Your task to perform on an android device: stop showing notifications on the lock screen Image 0: 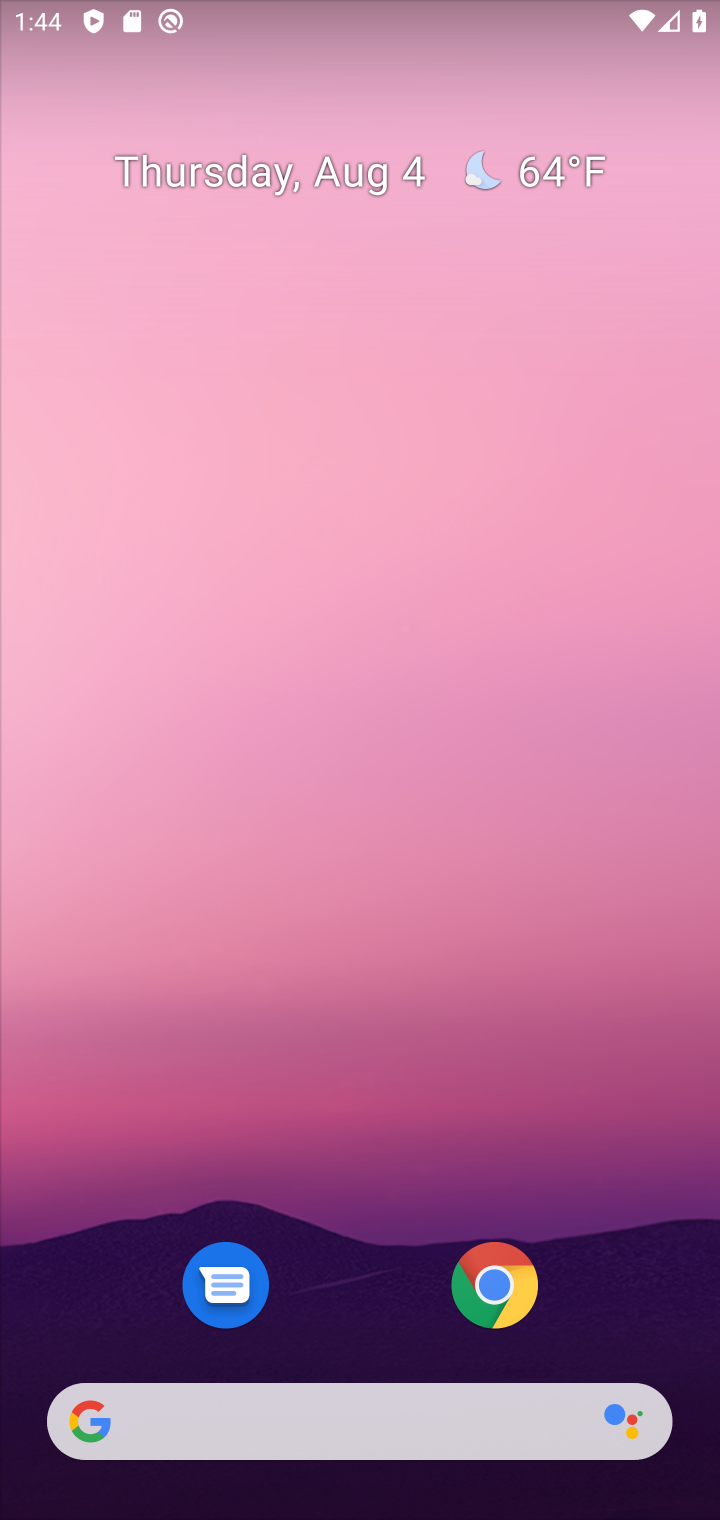
Step 0: drag from (667, 1263) to (583, 149)
Your task to perform on an android device: stop showing notifications on the lock screen Image 1: 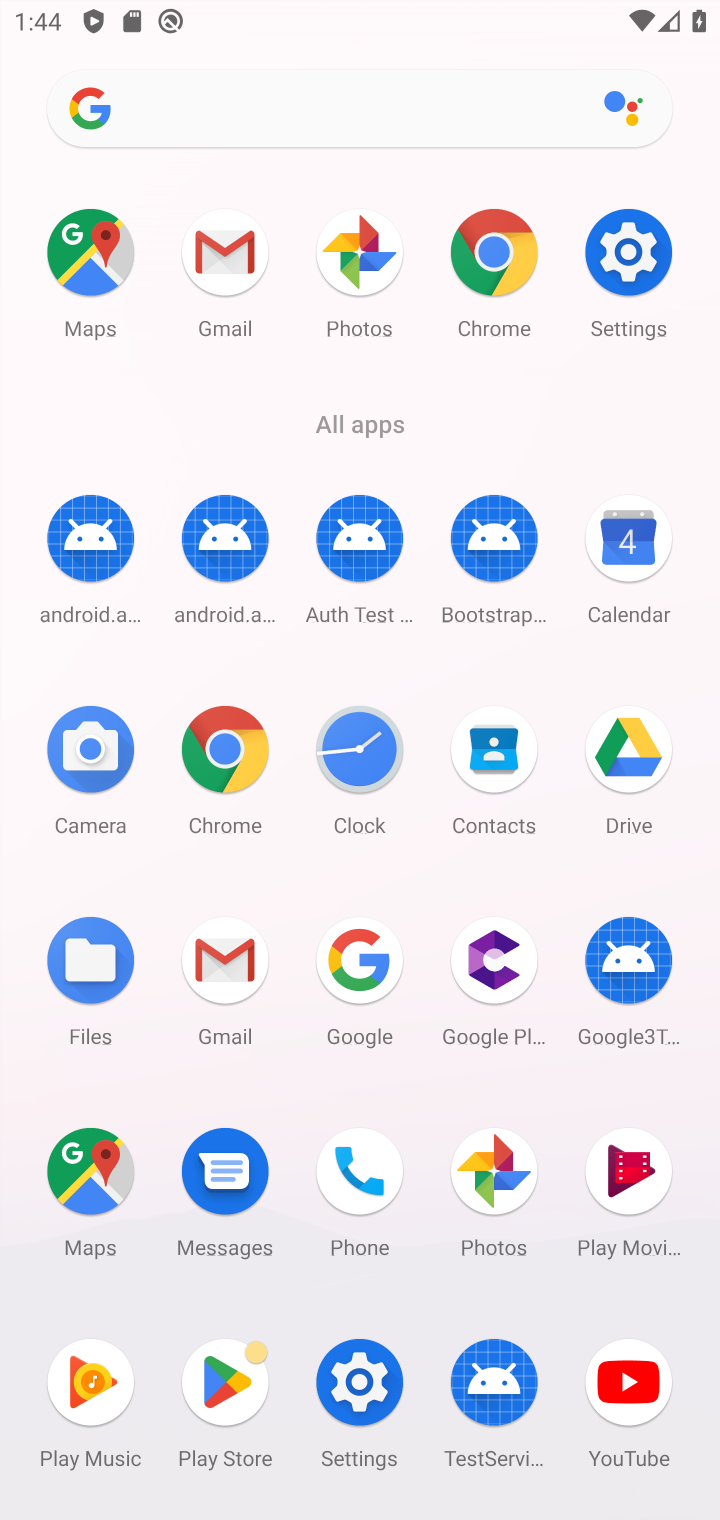
Step 1: click (360, 1377)
Your task to perform on an android device: stop showing notifications on the lock screen Image 2: 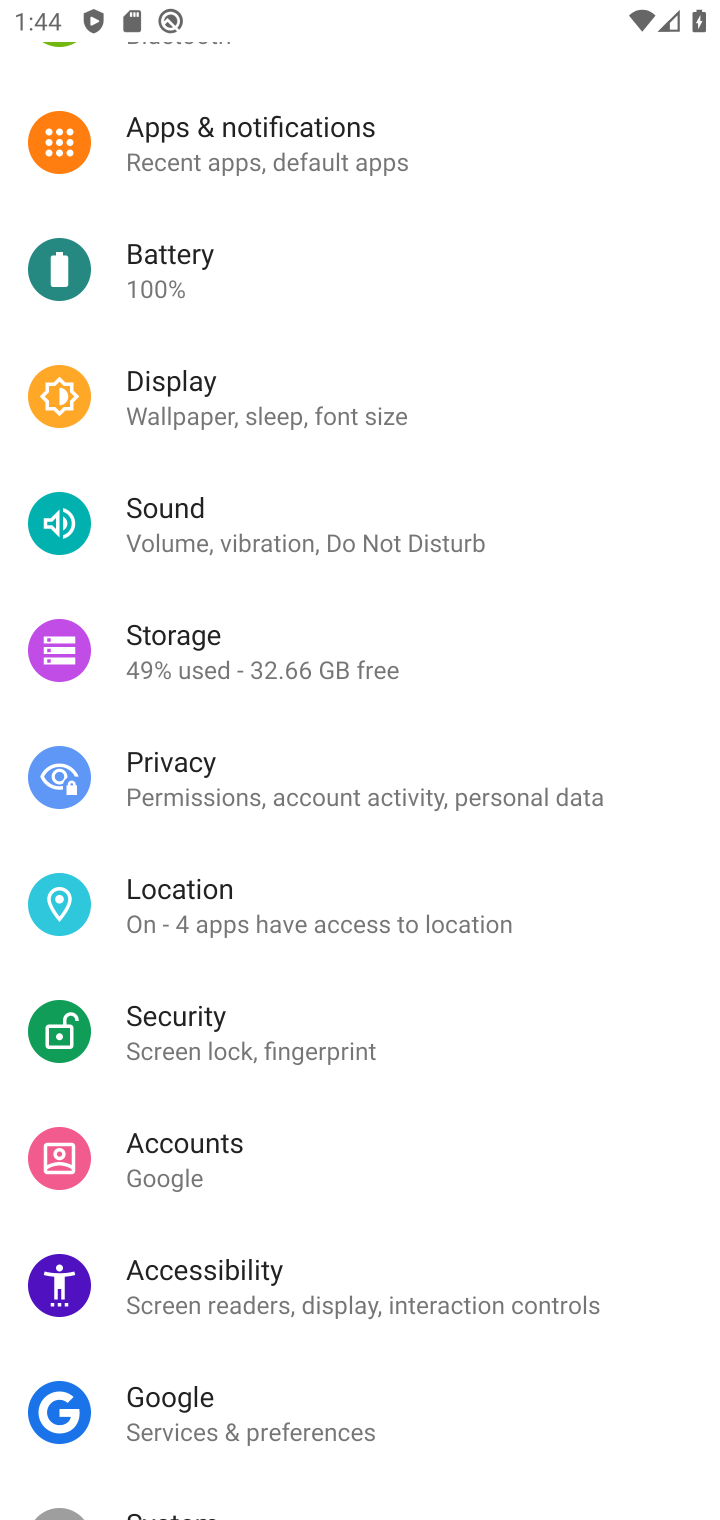
Step 2: drag from (611, 431) to (604, 918)
Your task to perform on an android device: stop showing notifications on the lock screen Image 3: 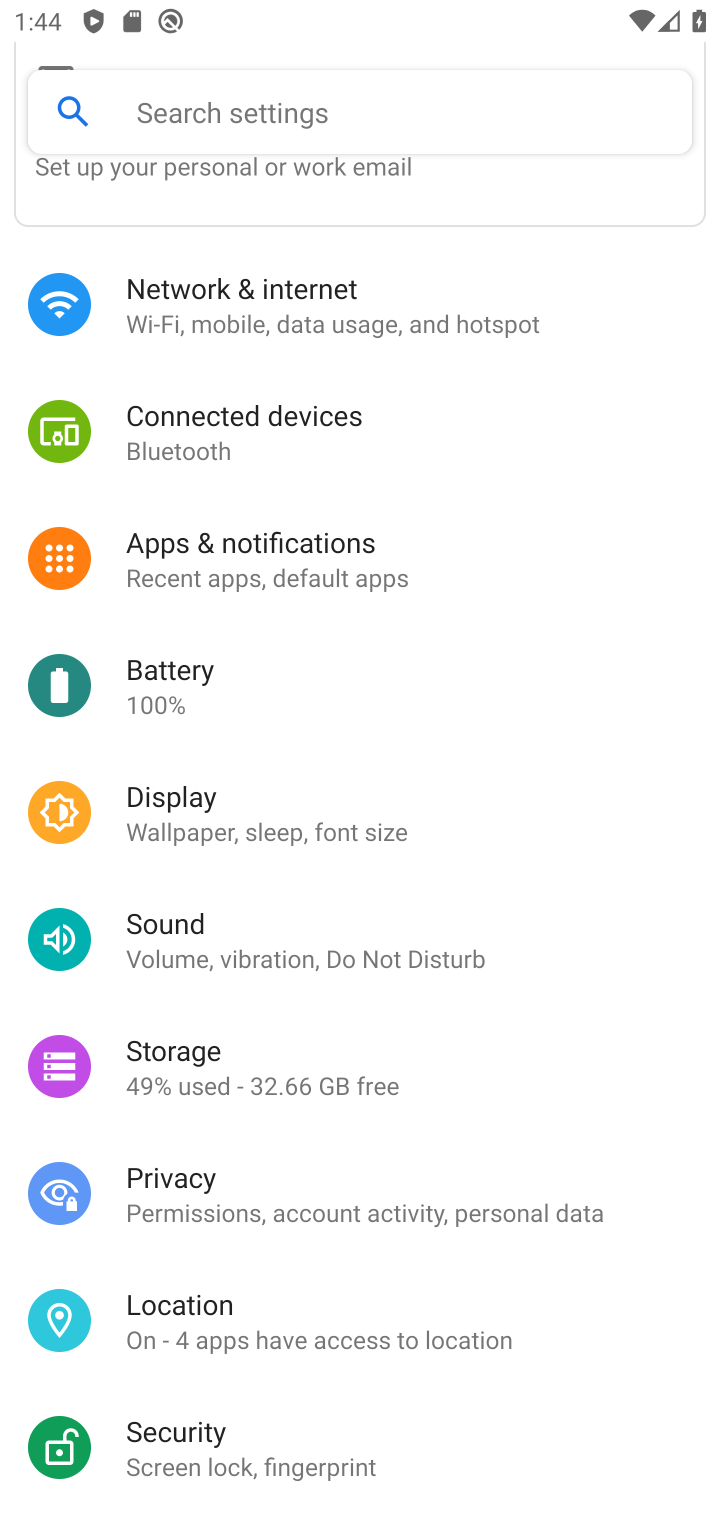
Step 3: click (199, 571)
Your task to perform on an android device: stop showing notifications on the lock screen Image 4: 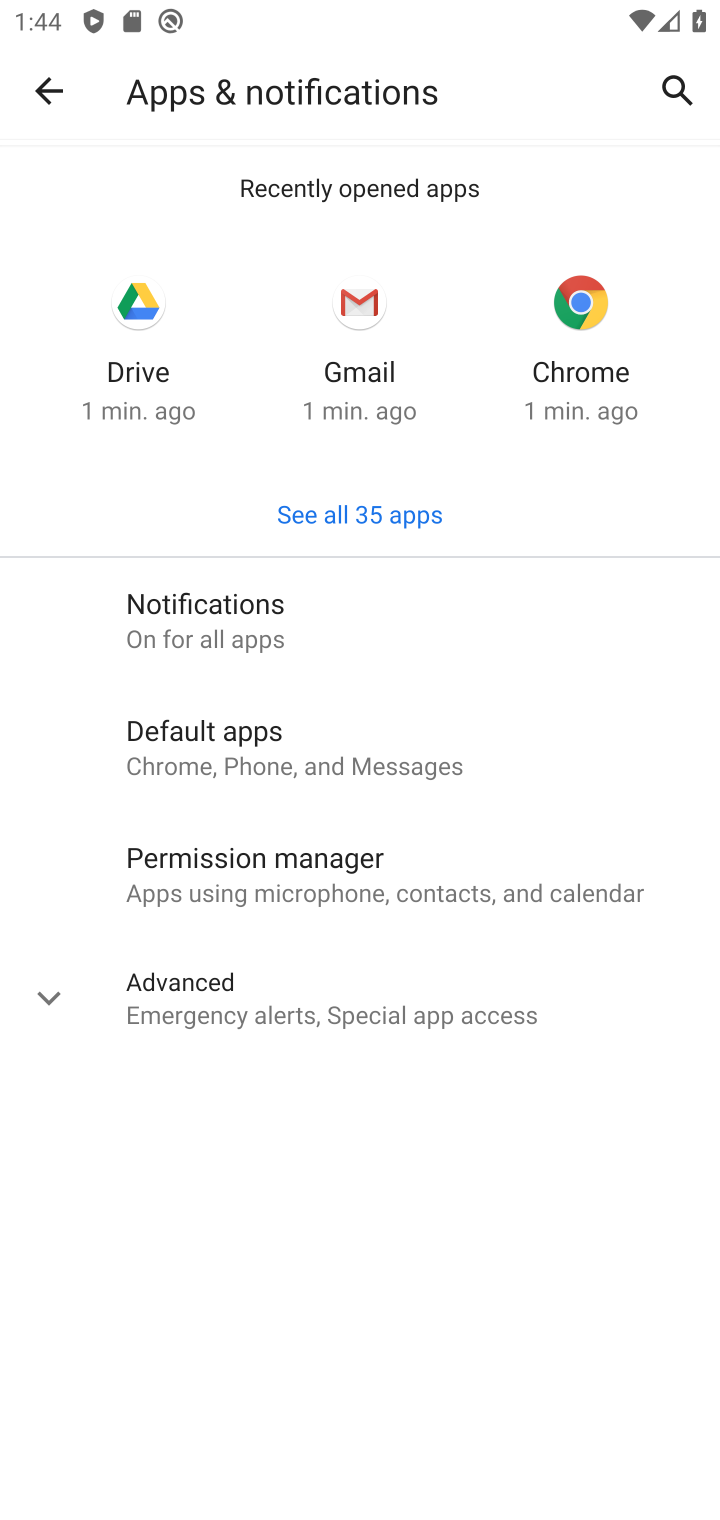
Step 4: click (208, 609)
Your task to perform on an android device: stop showing notifications on the lock screen Image 5: 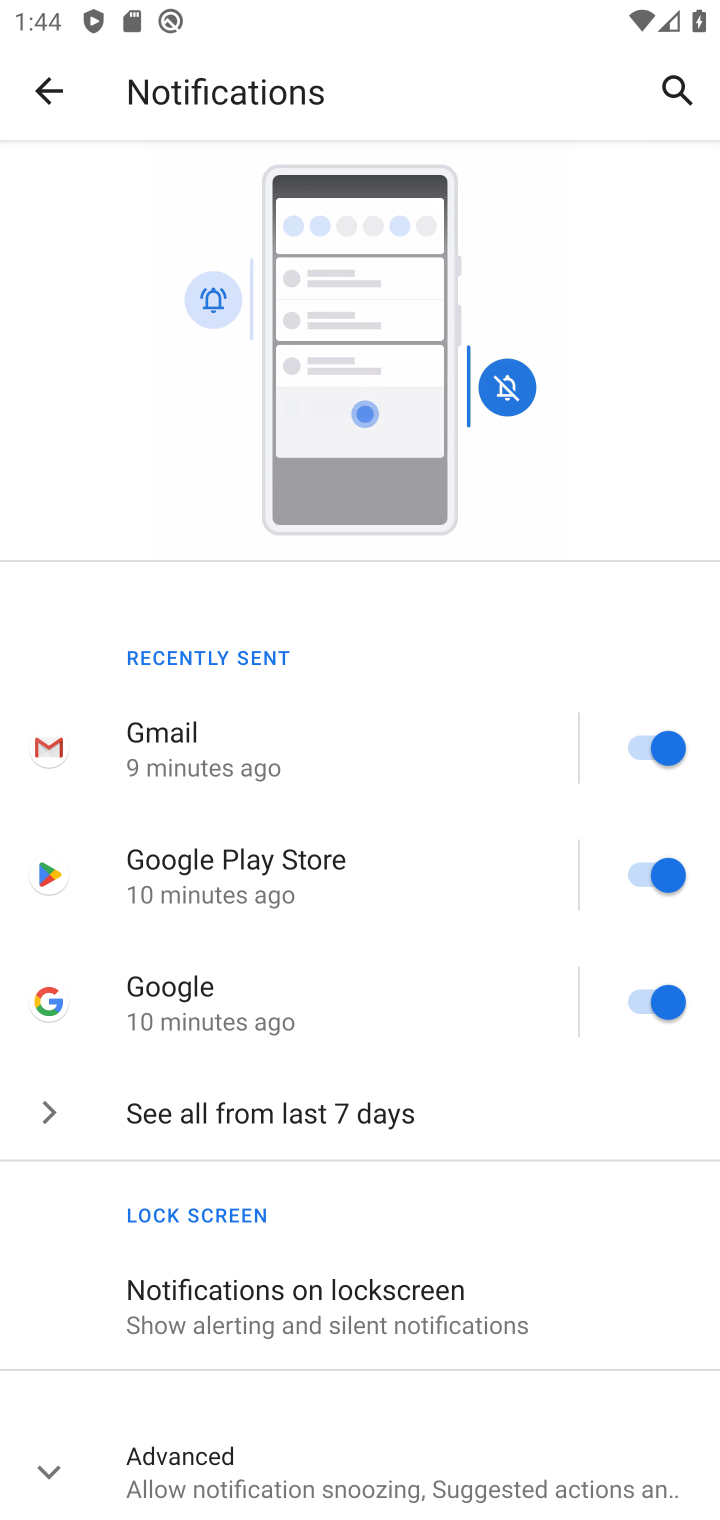
Step 5: drag from (538, 1277) to (533, 553)
Your task to perform on an android device: stop showing notifications on the lock screen Image 6: 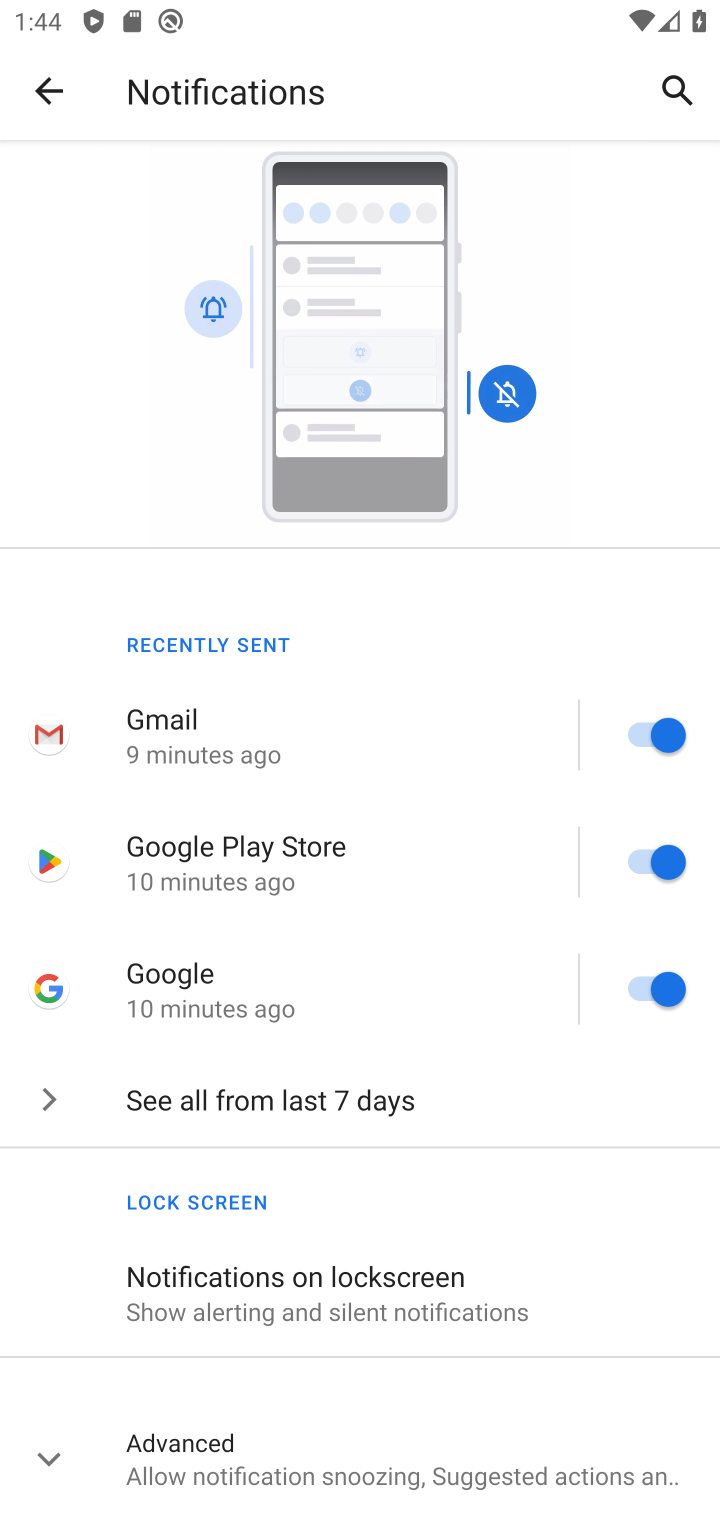
Step 6: click (332, 1297)
Your task to perform on an android device: stop showing notifications on the lock screen Image 7: 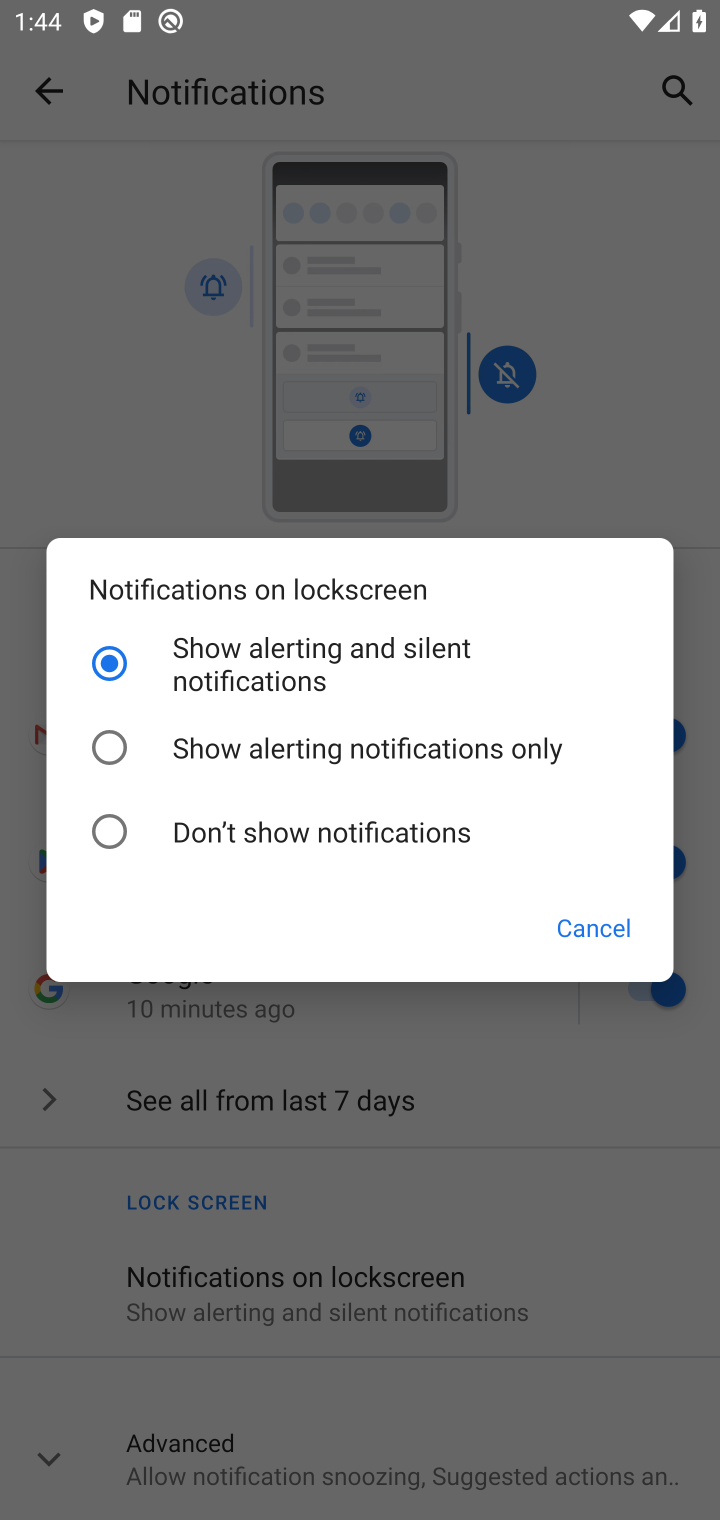
Step 7: click (104, 836)
Your task to perform on an android device: stop showing notifications on the lock screen Image 8: 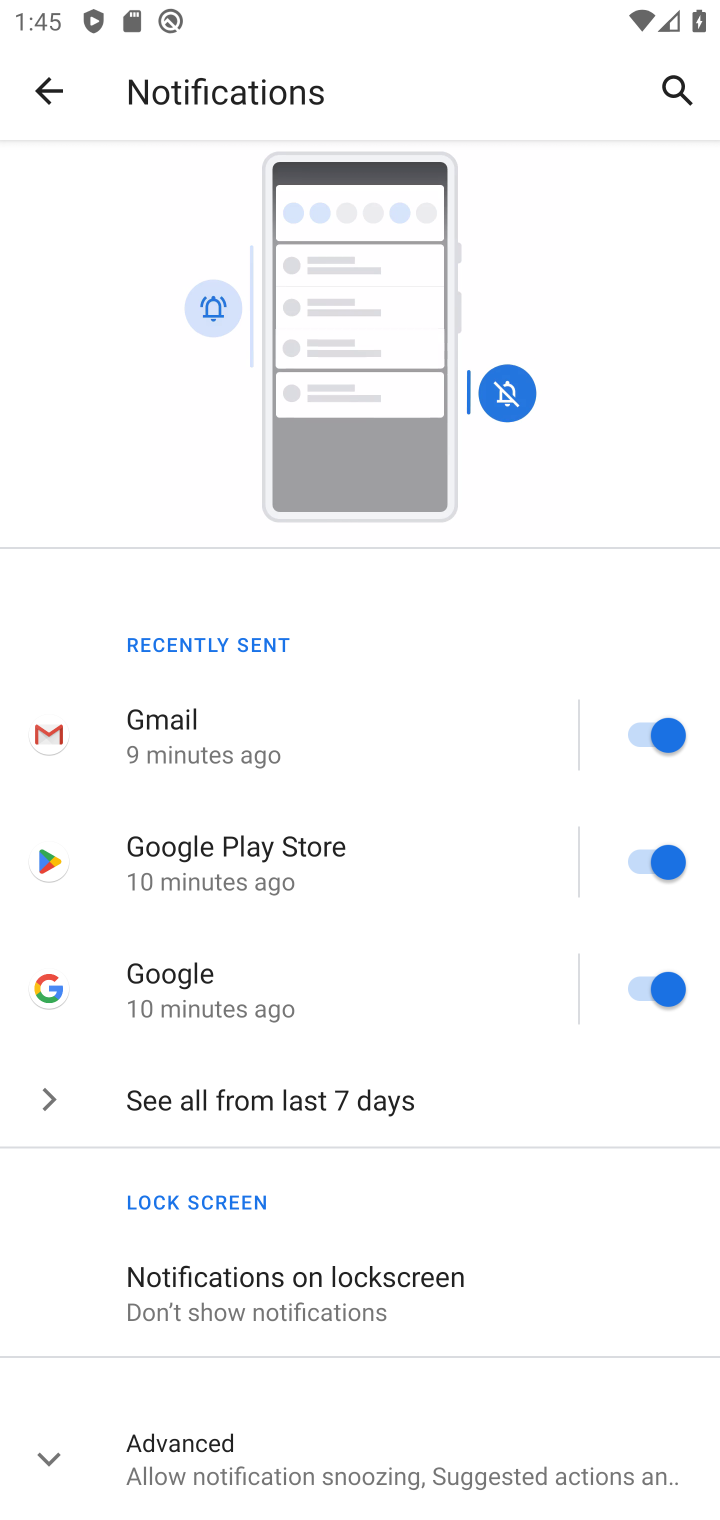
Step 8: task complete